Your task to perform on an android device: Open Chrome and go to settings Image 0: 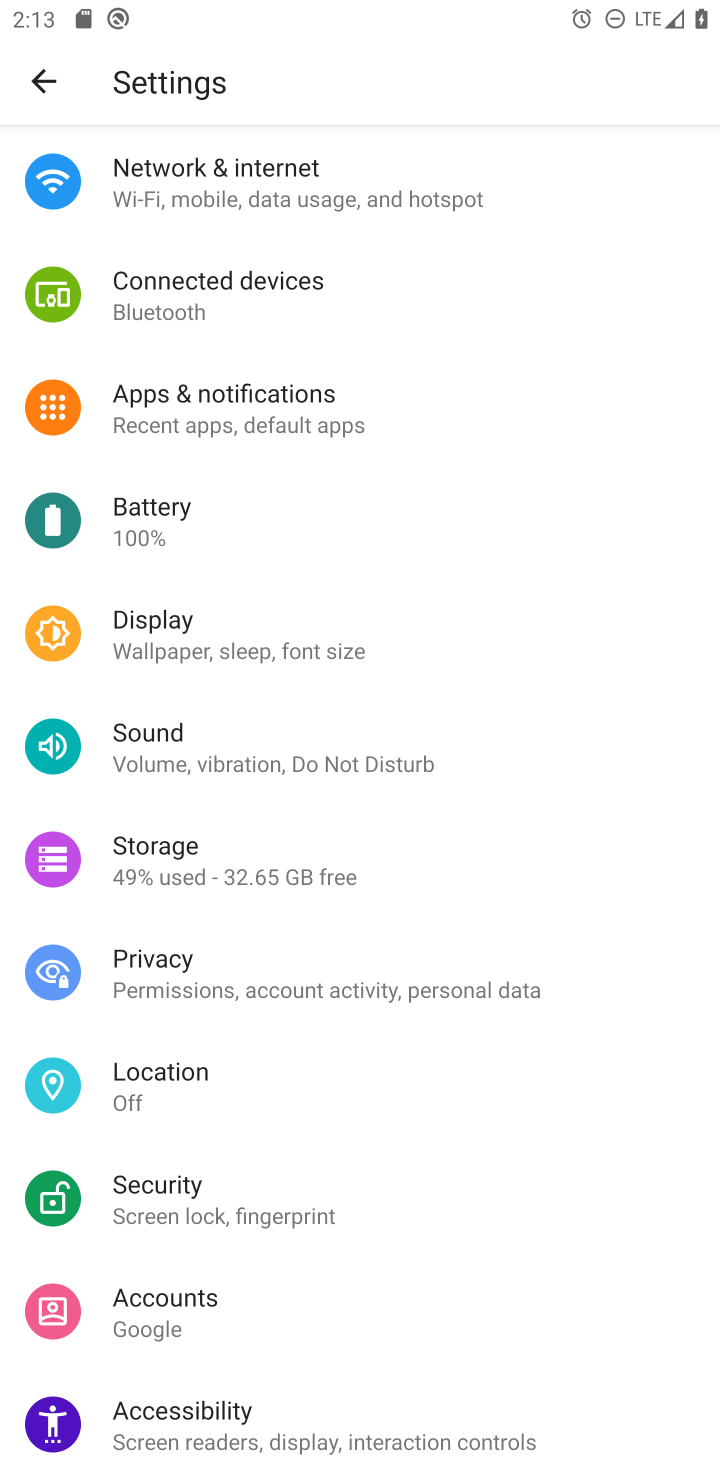
Step 0: press home button
Your task to perform on an android device: Open Chrome and go to settings Image 1: 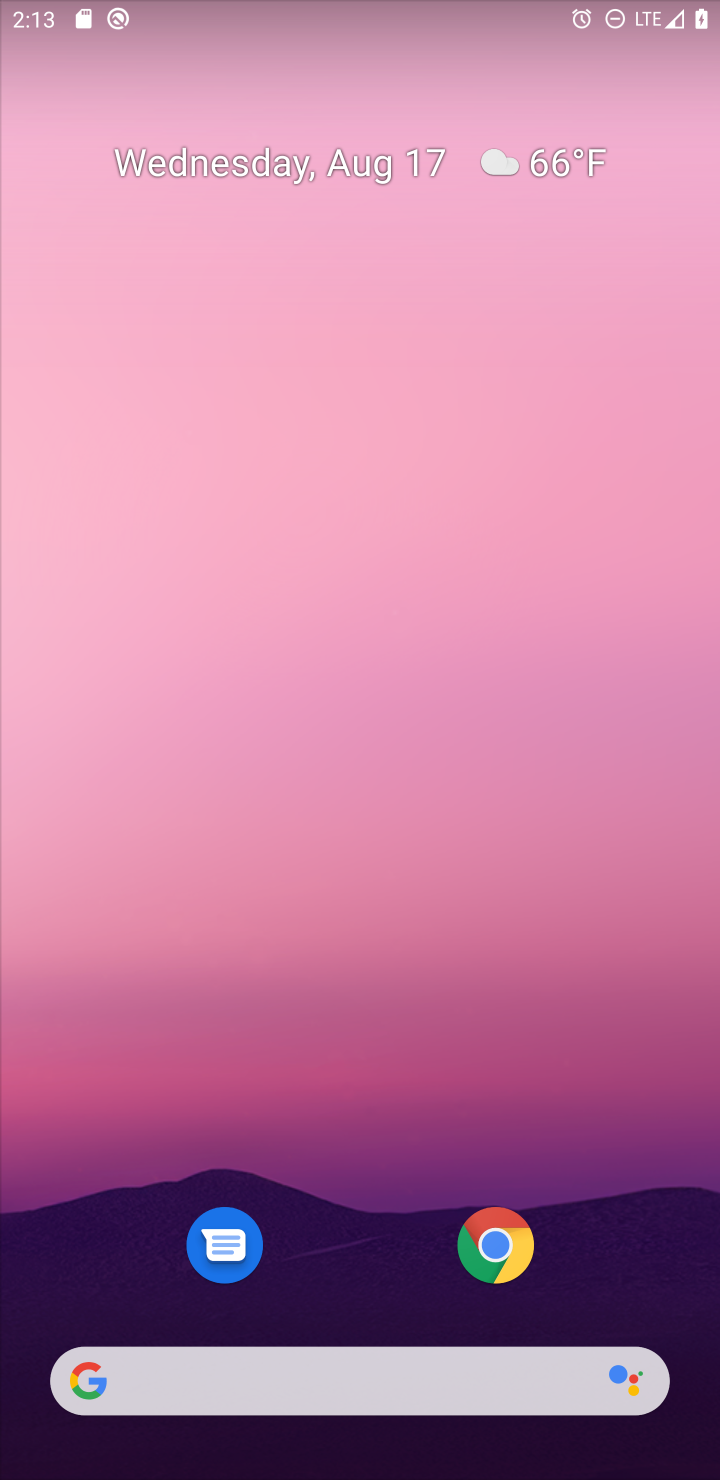
Step 1: click (498, 1255)
Your task to perform on an android device: Open Chrome and go to settings Image 2: 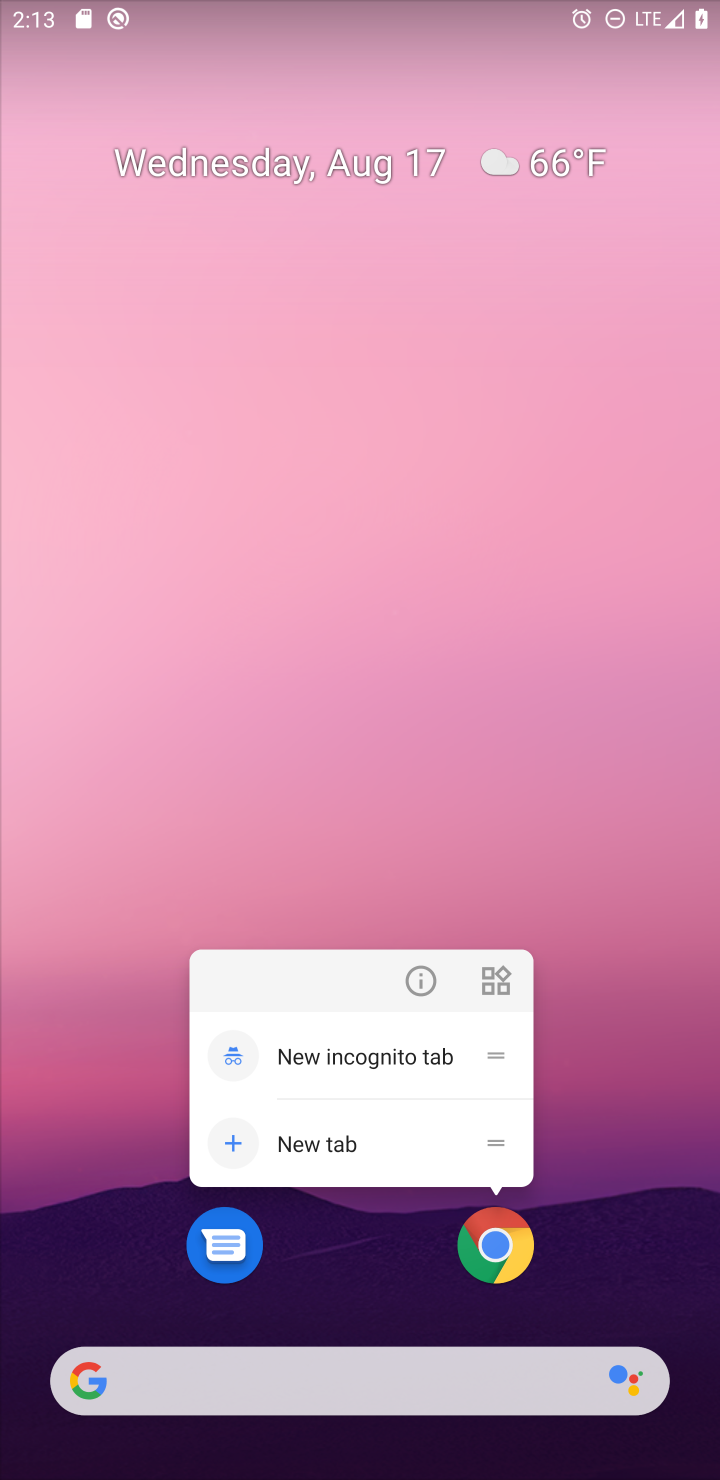
Step 2: click (498, 1256)
Your task to perform on an android device: Open Chrome and go to settings Image 3: 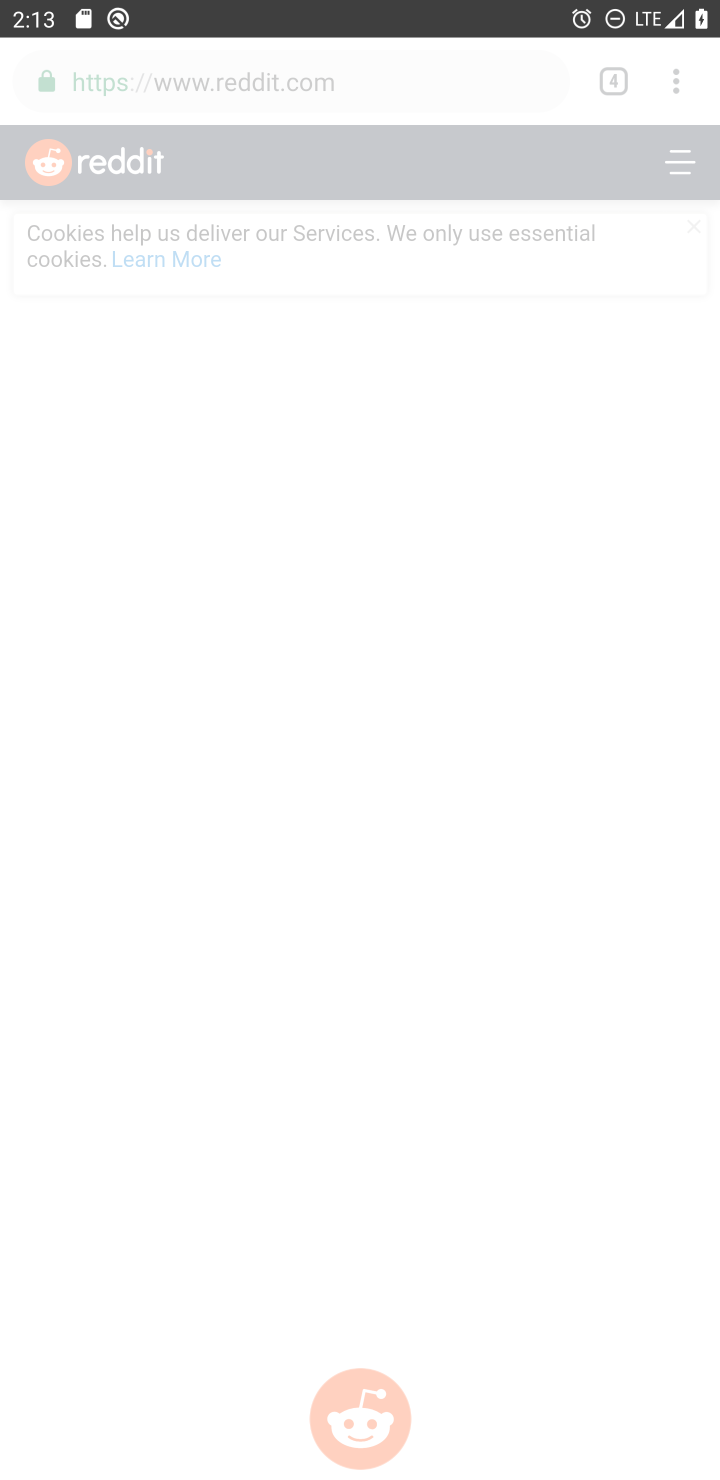
Step 3: click (498, 1256)
Your task to perform on an android device: Open Chrome and go to settings Image 4: 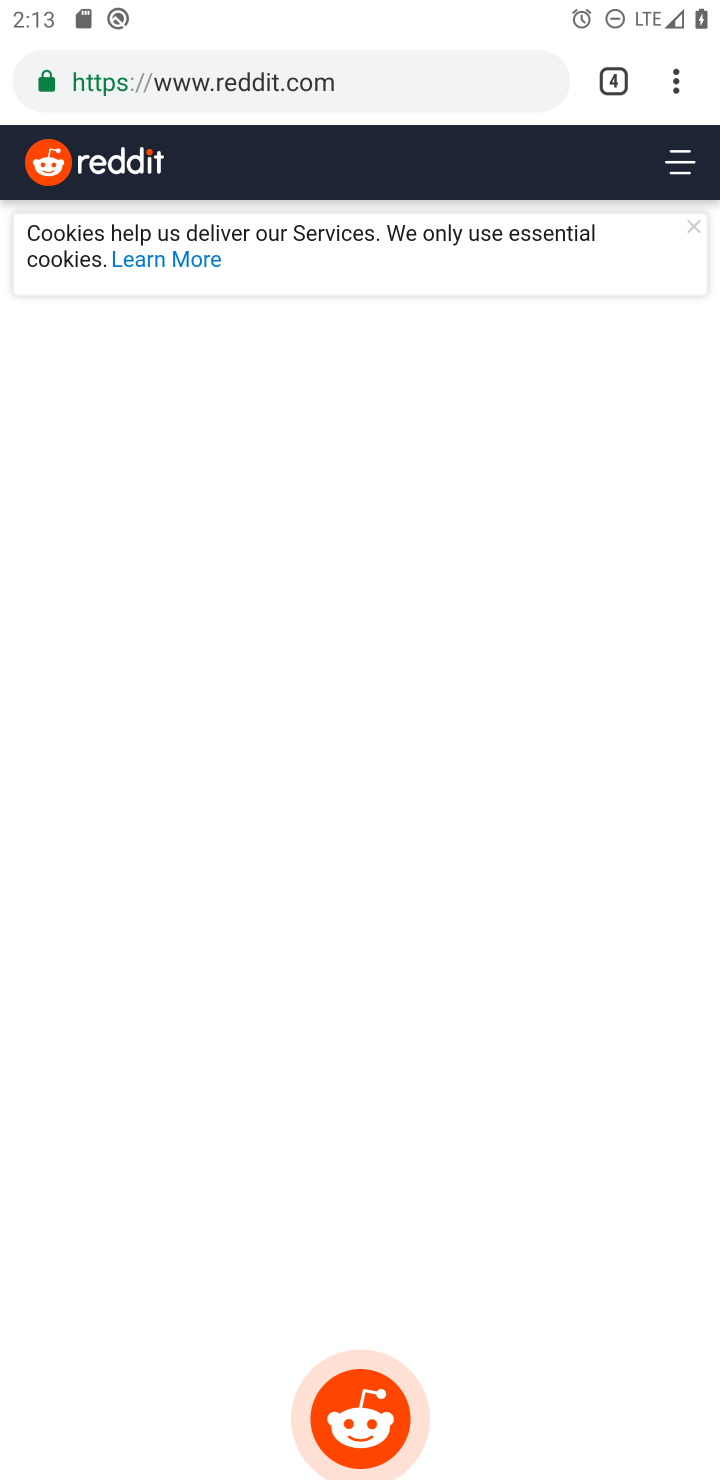
Step 4: task complete